Your task to perform on an android device: change the clock style Image 0: 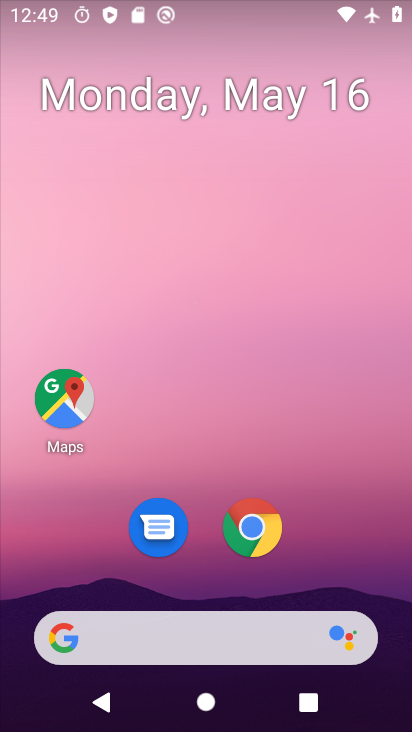
Step 0: press home button
Your task to perform on an android device: change the clock style Image 1: 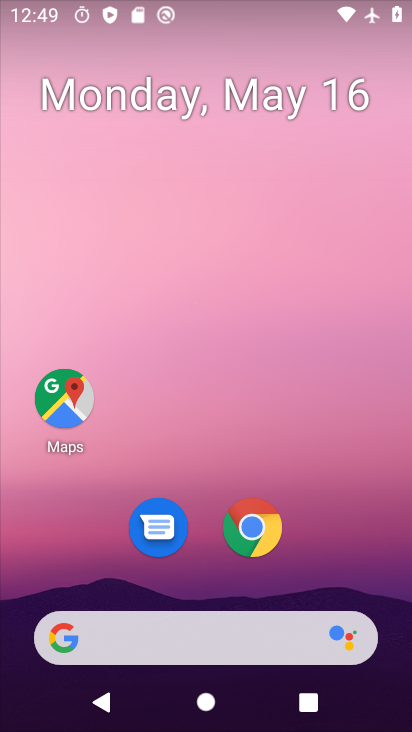
Step 1: drag from (176, 634) to (330, 227)
Your task to perform on an android device: change the clock style Image 2: 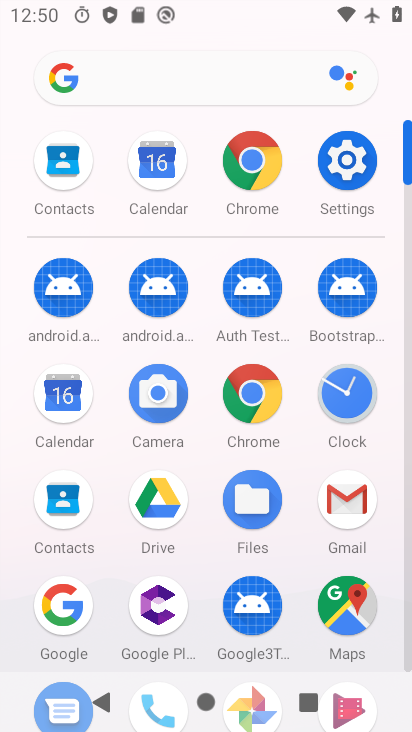
Step 2: click (354, 392)
Your task to perform on an android device: change the clock style Image 3: 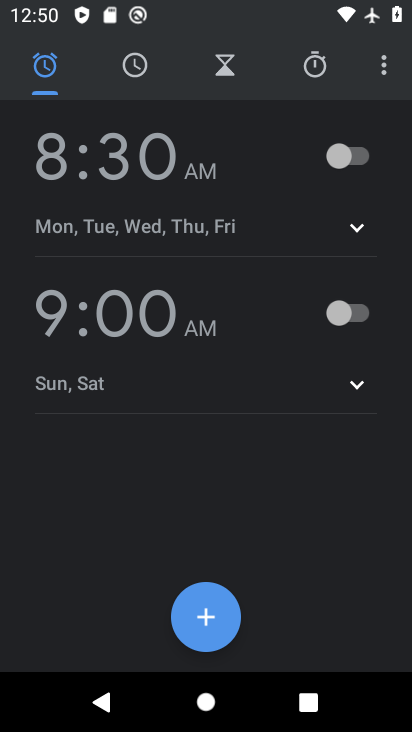
Step 3: click (380, 65)
Your task to perform on an android device: change the clock style Image 4: 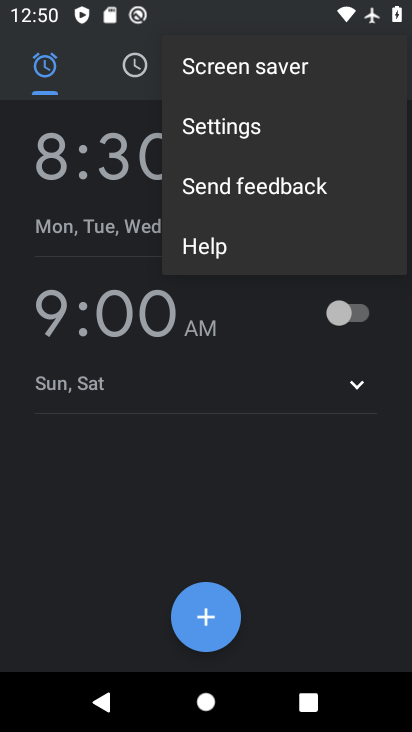
Step 4: click (210, 120)
Your task to perform on an android device: change the clock style Image 5: 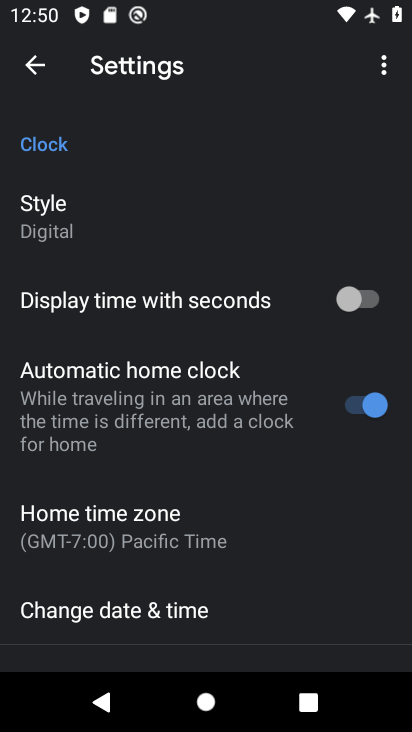
Step 5: click (45, 237)
Your task to perform on an android device: change the clock style Image 6: 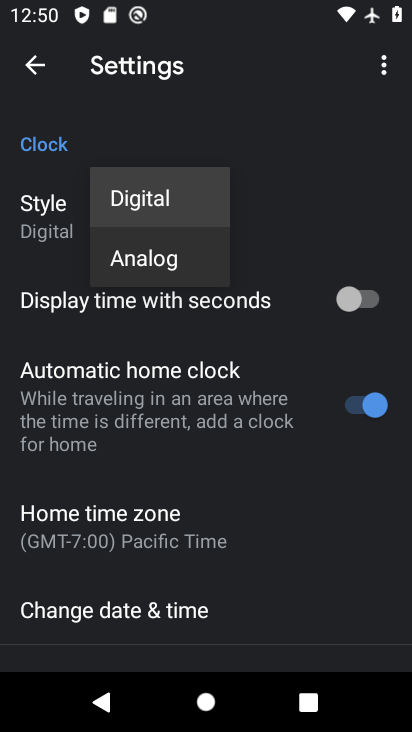
Step 6: click (157, 259)
Your task to perform on an android device: change the clock style Image 7: 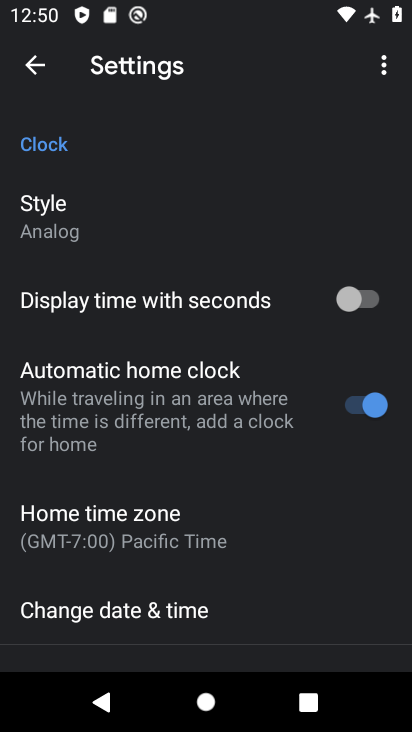
Step 7: task complete